Your task to perform on an android device: allow notifications from all sites in the chrome app Image 0: 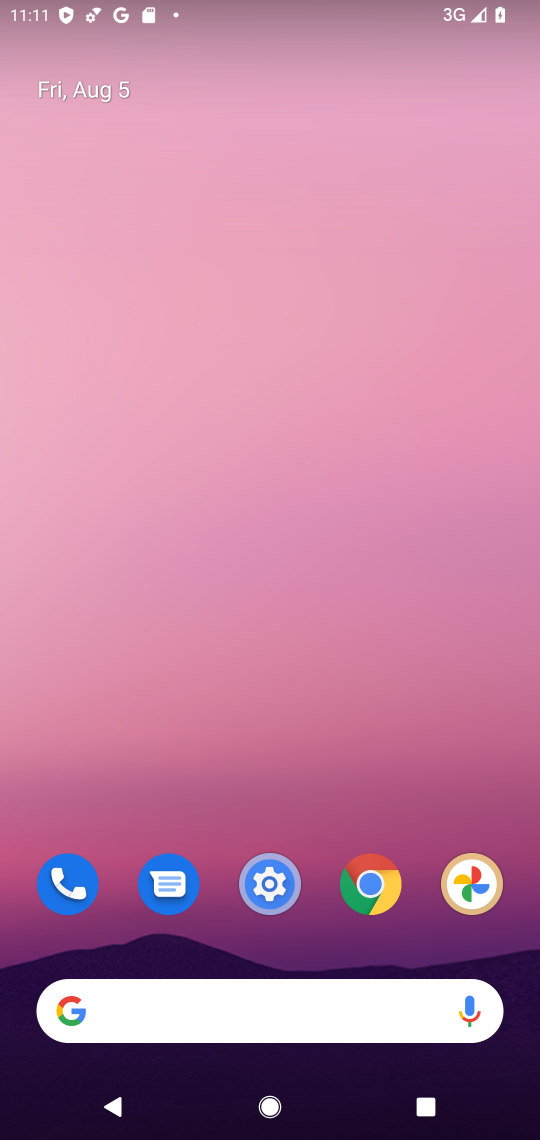
Step 0: click (379, 897)
Your task to perform on an android device: allow notifications from all sites in the chrome app Image 1: 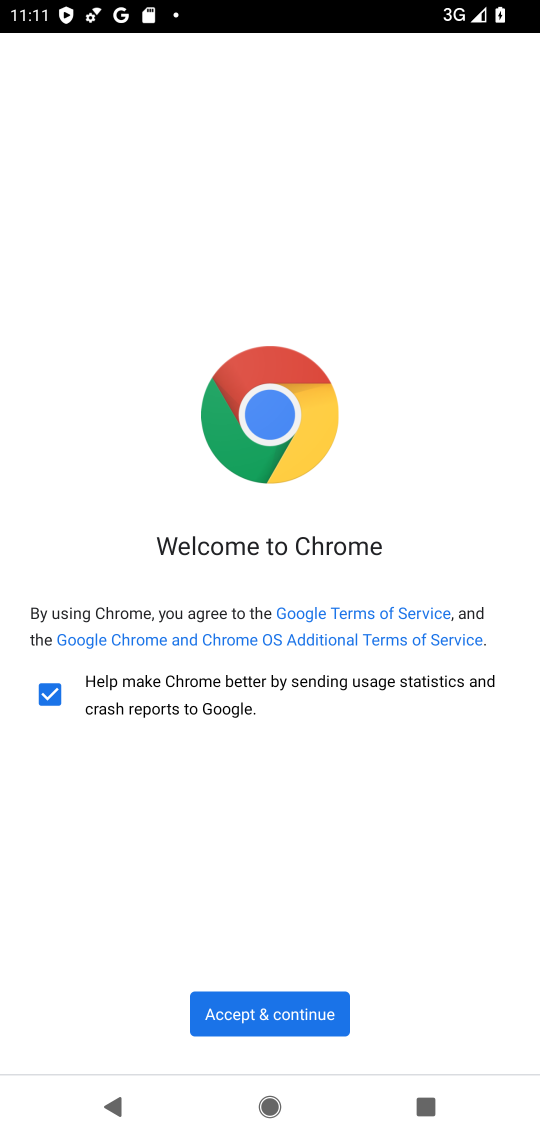
Step 1: click (227, 1016)
Your task to perform on an android device: allow notifications from all sites in the chrome app Image 2: 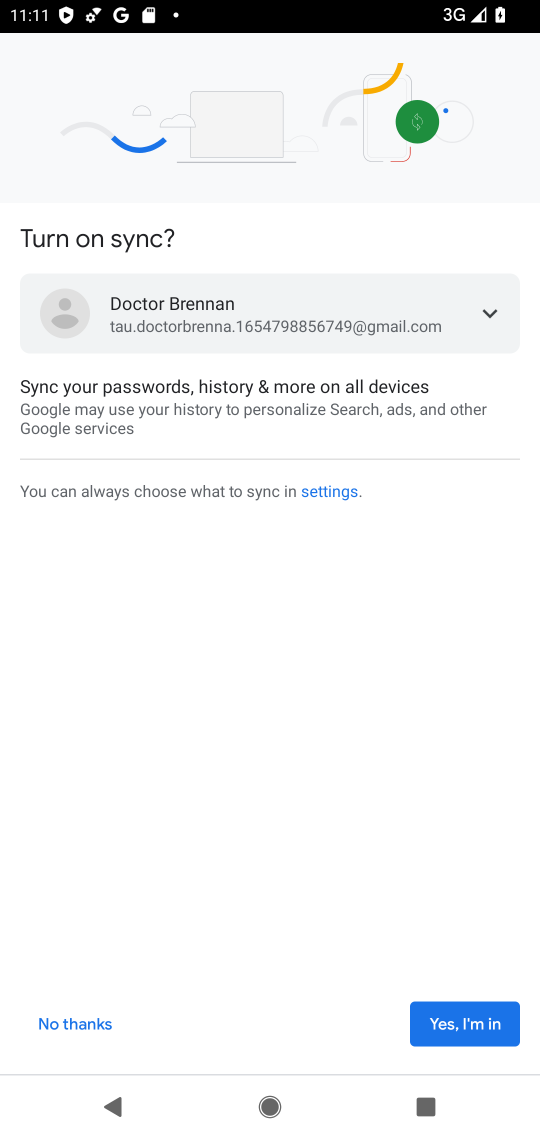
Step 2: click (507, 1017)
Your task to perform on an android device: allow notifications from all sites in the chrome app Image 3: 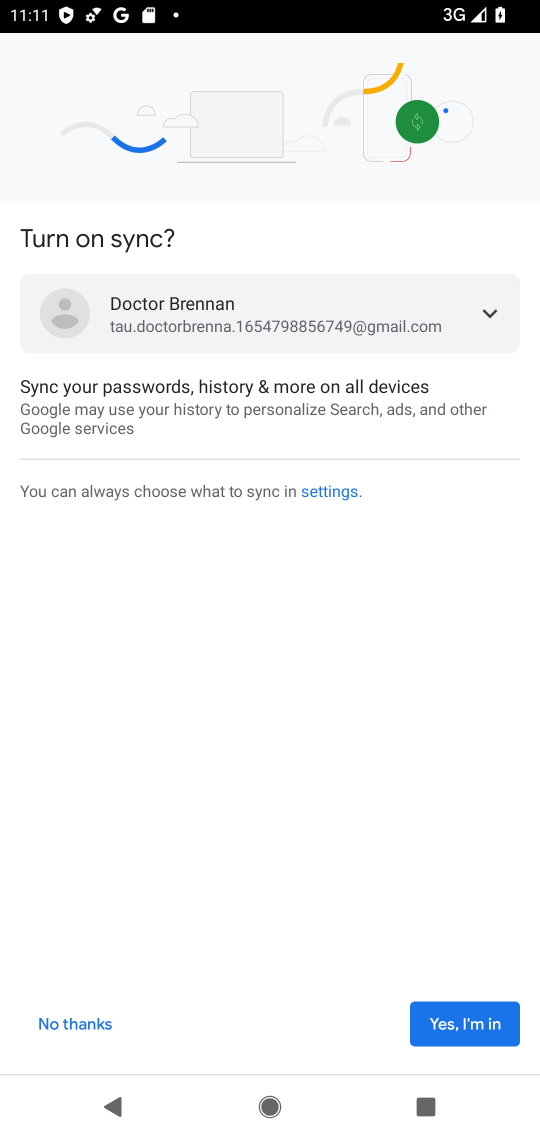
Step 3: click (475, 1021)
Your task to perform on an android device: allow notifications from all sites in the chrome app Image 4: 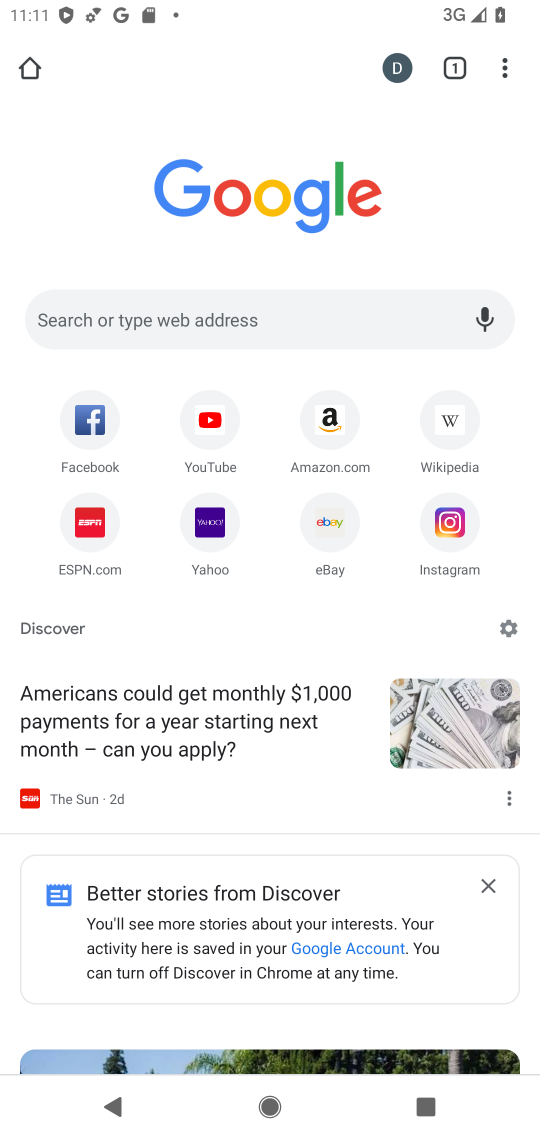
Step 4: click (497, 53)
Your task to perform on an android device: allow notifications from all sites in the chrome app Image 5: 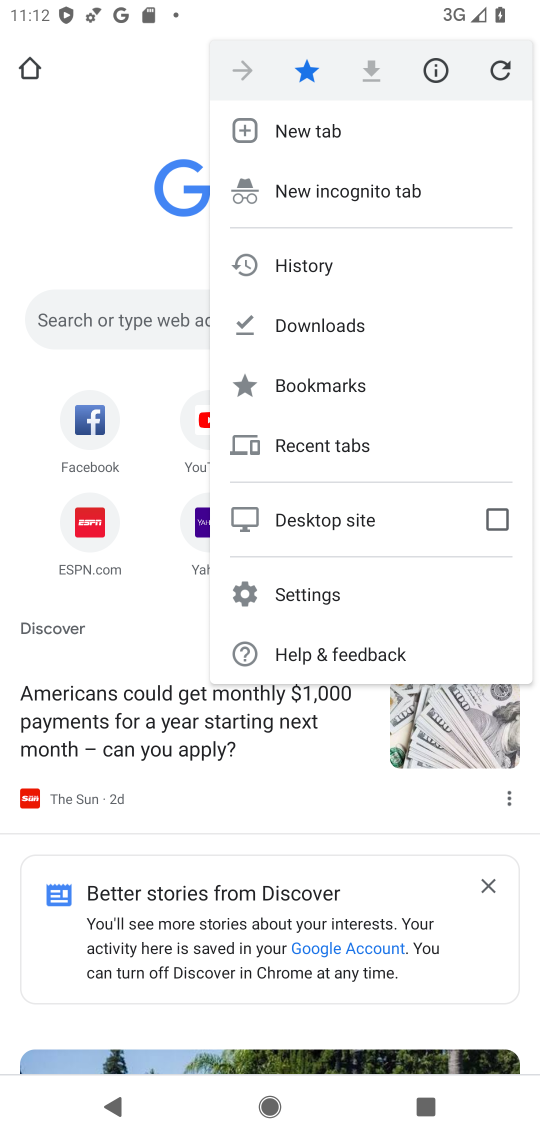
Step 5: click (381, 576)
Your task to perform on an android device: allow notifications from all sites in the chrome app Image 6: 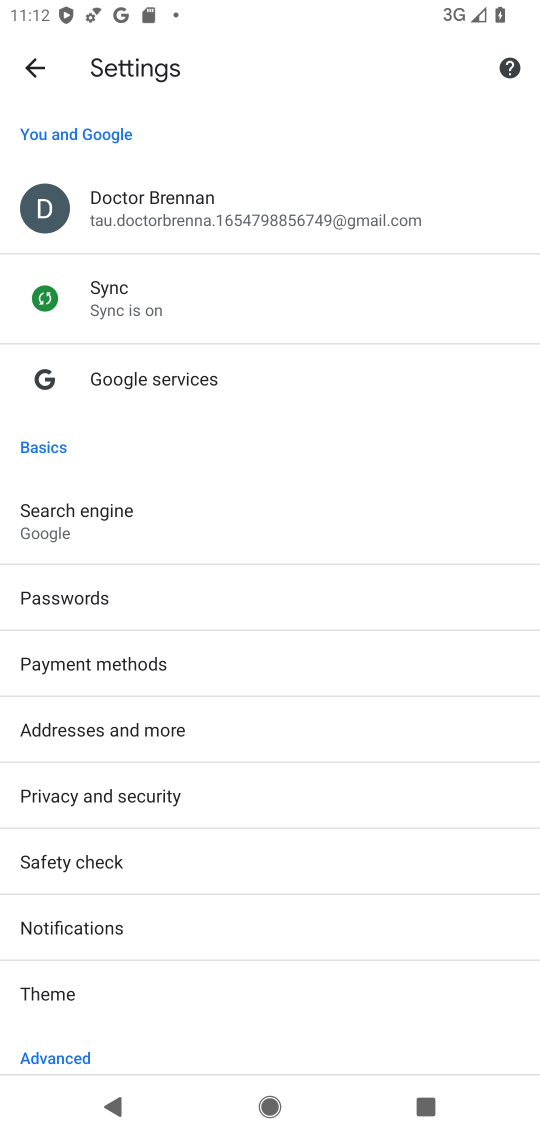
Step 6: click (110, 922)
Your task to perform on an android device: allow notifications from all sites in the chrome app Image 7: 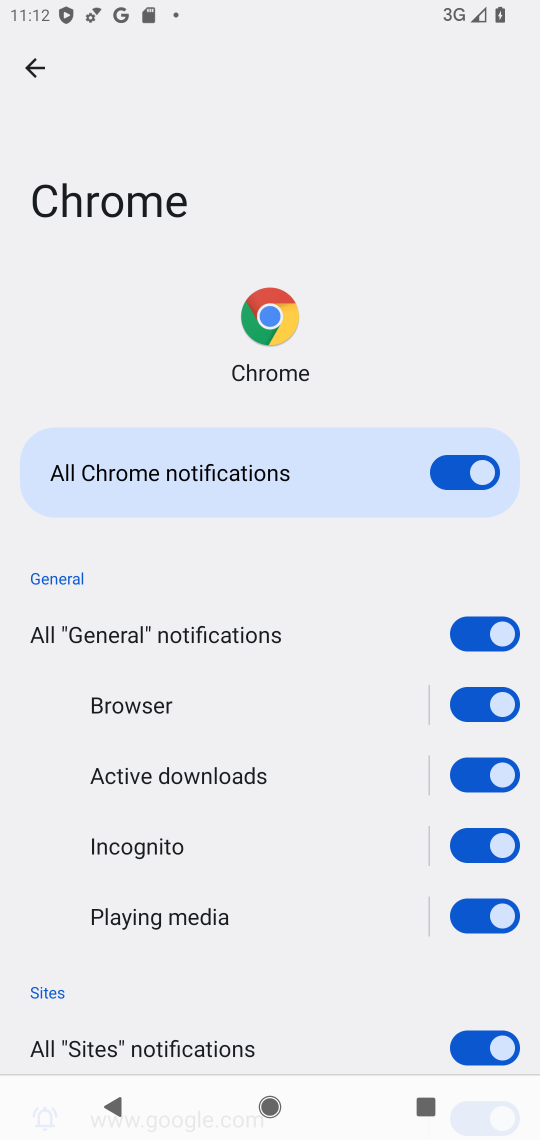
Step 7: task complete